Your task to perform on an android device: find which apps use the phone's location Image 0: 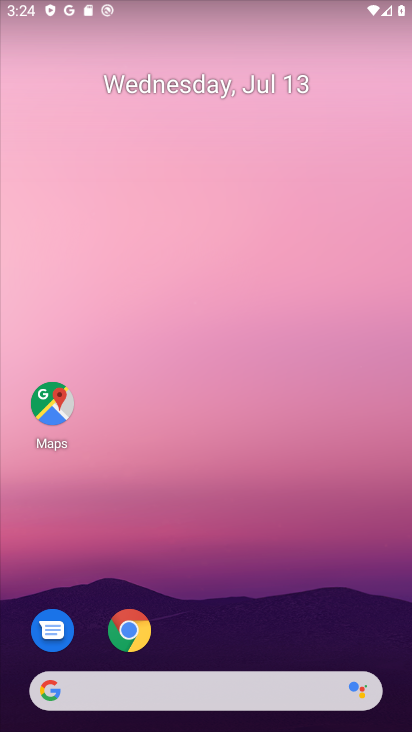
Step 0: drag from (179, 480) to (179, 181)
Your task to perform on an android device: find which apps use the phone's location Image 1: 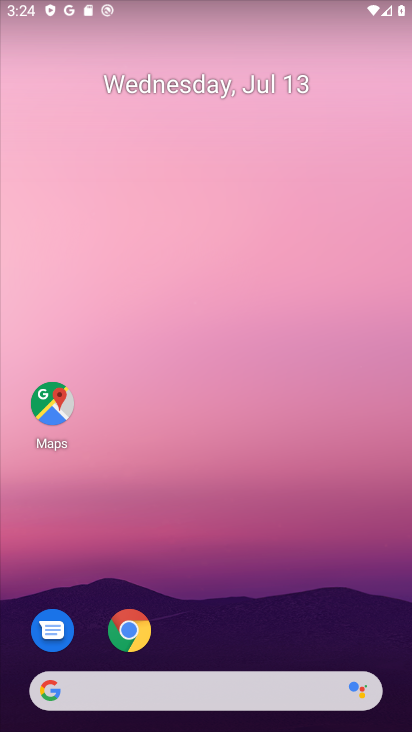
Step 1: drag from (175, 458) to (144, 54)
Your task to perform on an android device: find which apps use the phone's location Image 2: 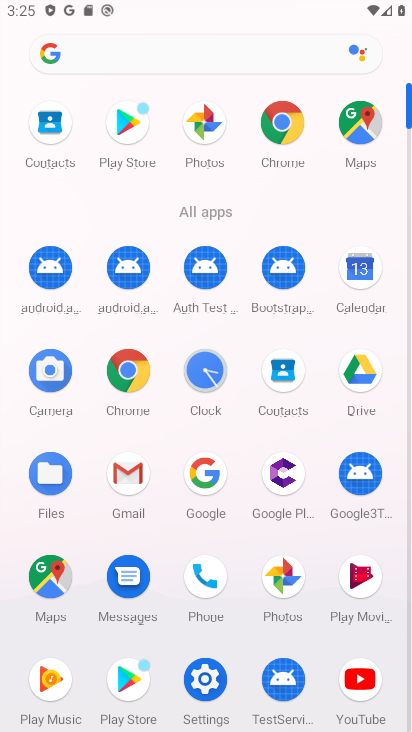
Step 2: click (197, 681)
Your task to perform on an android device: find which apps use the phone's location Image 3: 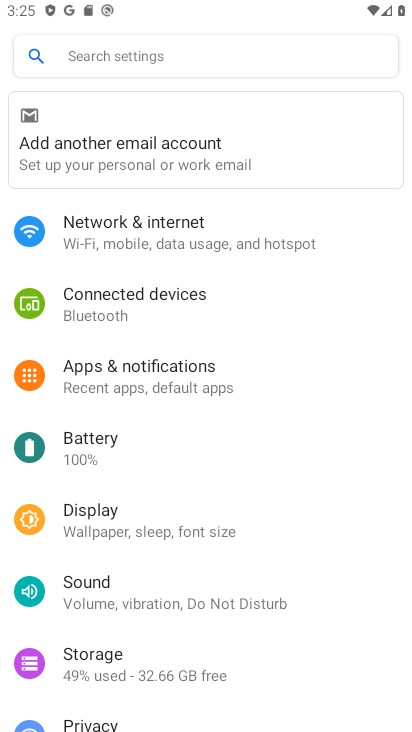
Step 3: drag from (197, 483) to (192, 306)
Your task to perform on an android device: find which apps use the phone's location Image 4: 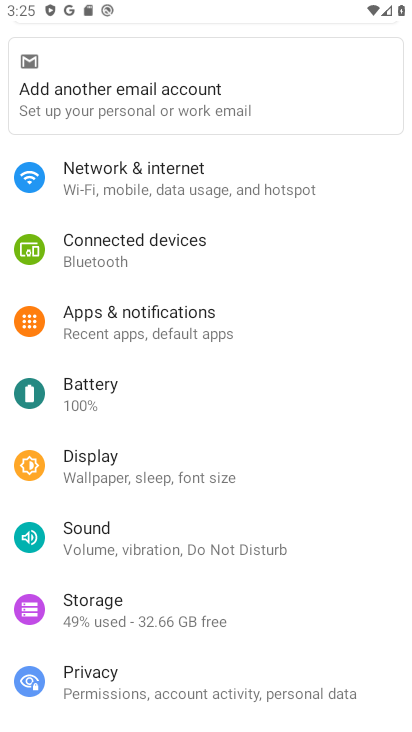
Step 4: drag from (205, 565) to (205, 292)
Your task to perform on an android device: find which apps use the phone's location Image 5: 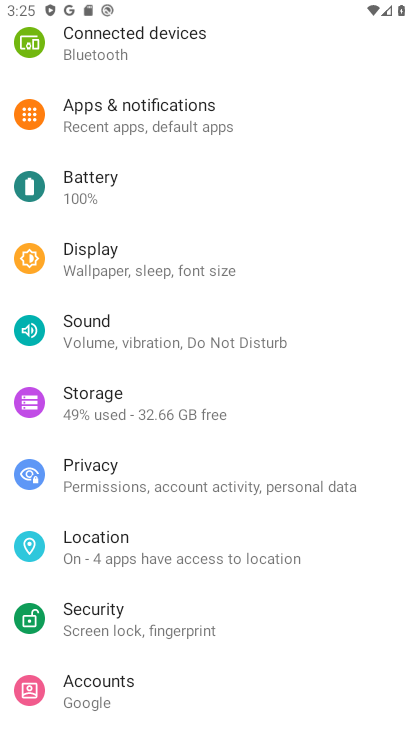
Step 5: click (134, 559)
Your task to perform on an android device: find which apps use the phone's location Image 6: 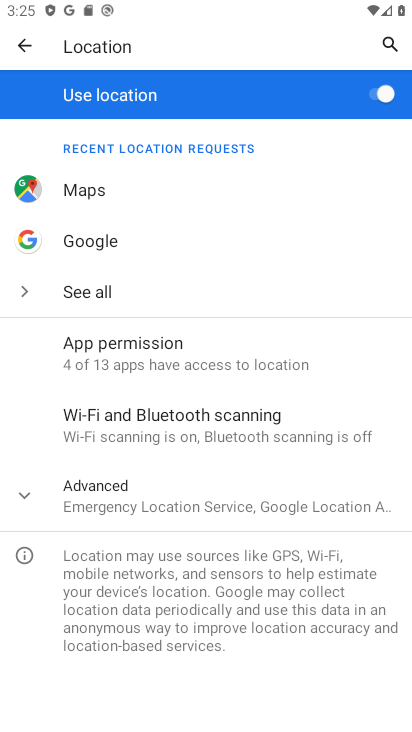
Step 6: click (108, 513)
Your task to perform on an android device: find which apps use the phone's location Image 7: 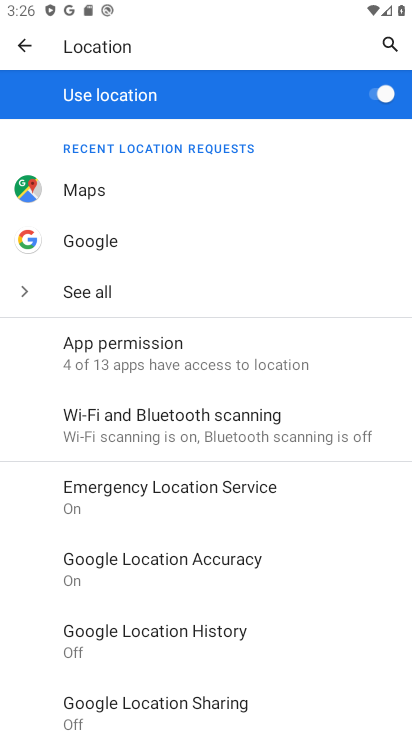
Step 7: click (115, 368)
Your task to perform on an android device: find which apps use the phone's location Image 8: 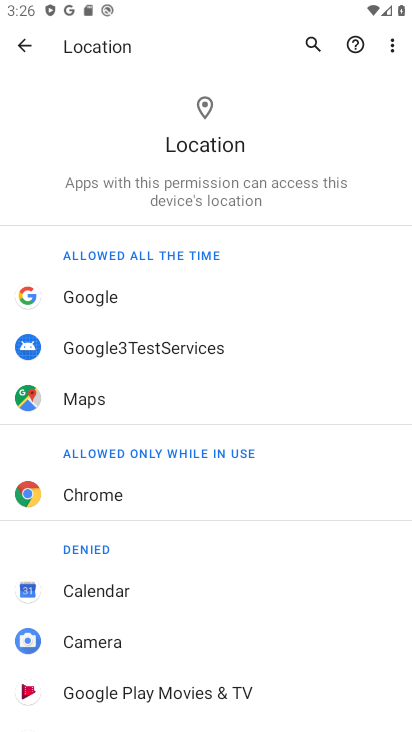
Step 8: task complete